Your task to perform on an android device: turn pop-ups off in chrome Image 0: 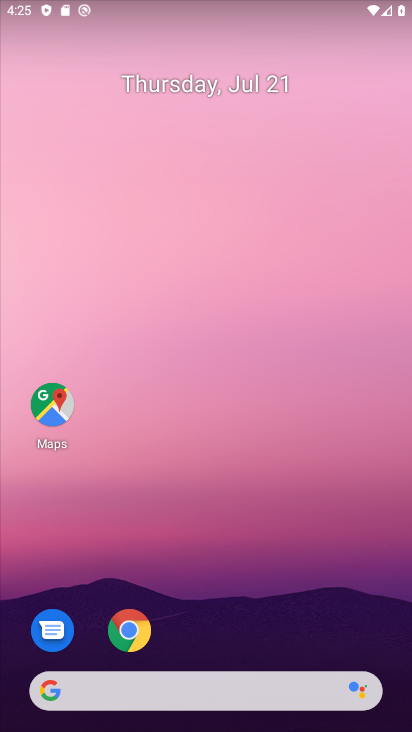
Step 0: click (140, 626)
Your task to perform on an android device: turn pop-ups off in chrome Image 1: 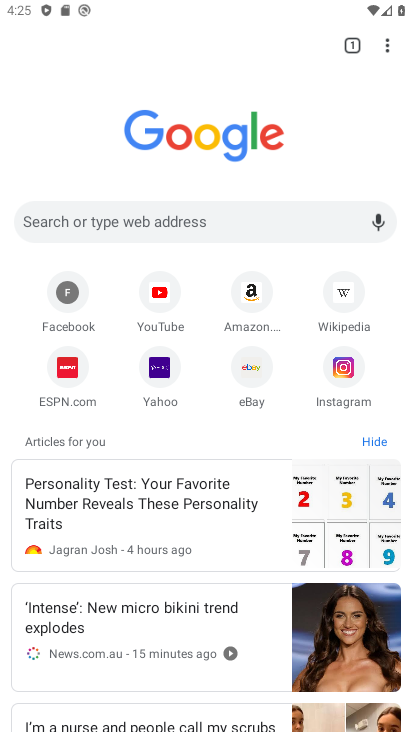
Step 1: click (387, 55)
Your task to perform on an android device: turn pop-ups off in chrome Image 2: 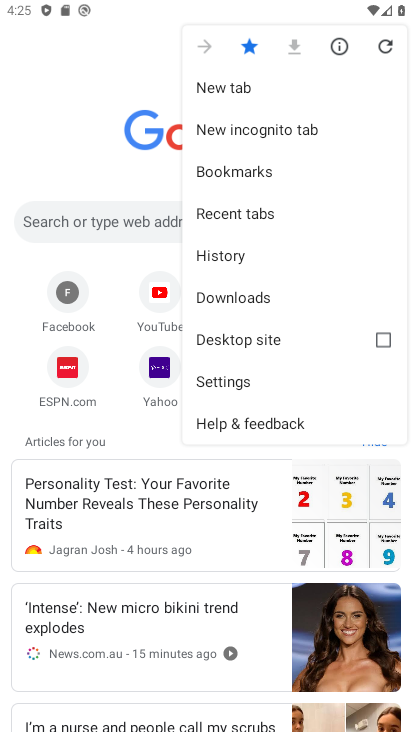
Step 2: click (244, 388)
Your task to perform on an android device: turn pop-ups off in chrome Image 3: 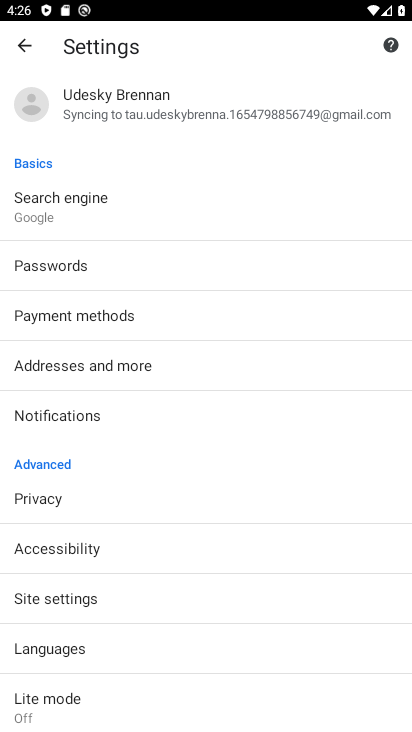
Step 3: click (135, 607)
Your task to perform on an android device: turn pop-ups off in chrome Image 4: 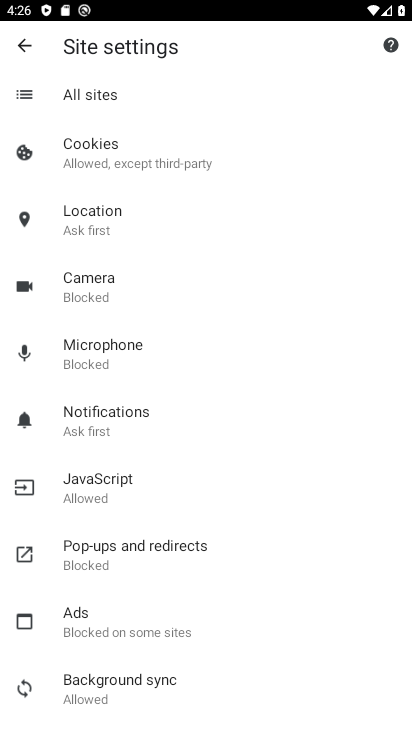
Step 4: click (173, 562)
Your task to perform on an android device: turn pop-ups off in chrome Image 5: 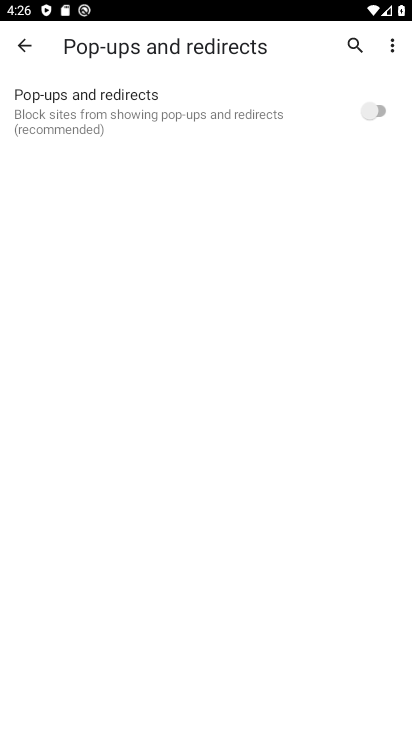
Step 5: task complete